Your task to perform on an android device: open a bookmark in the chrome app Image 0: 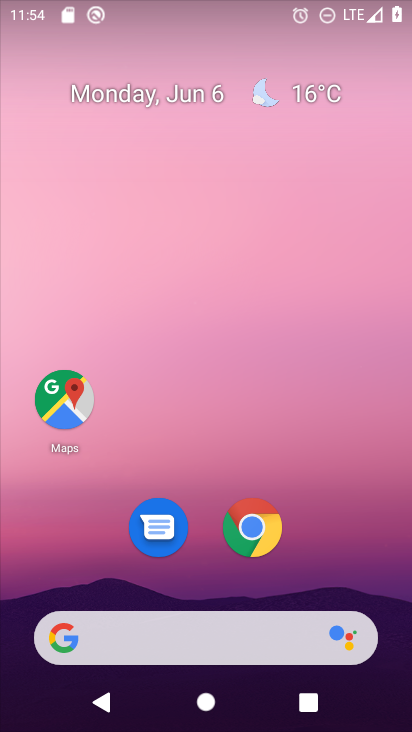
Step 0: drag from (353, 547) to (345, 48)
Your task to perform on an android device: open a bookmark in the chrome app Image 1: 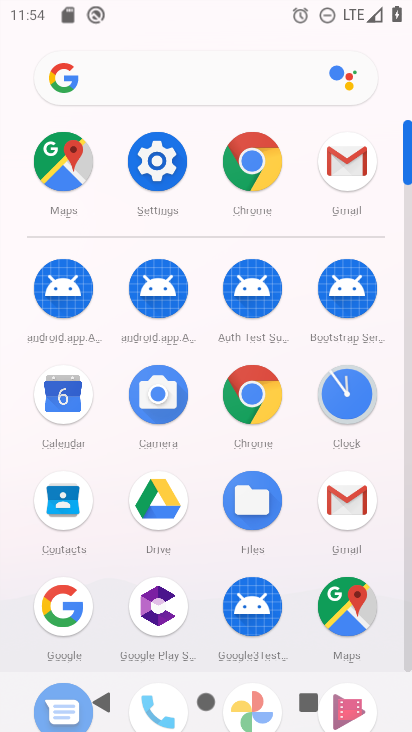
Step 1: click (246, 172)
Your task to perform on an android device: open a bookmark in the chrome app Image 2: 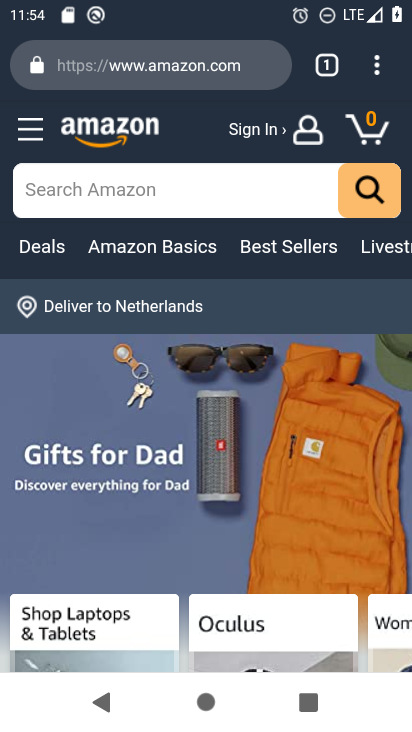
Step 2: click (384, 72)
Your task to perform on an android device: open a bookmark in the chrome app Image 3: 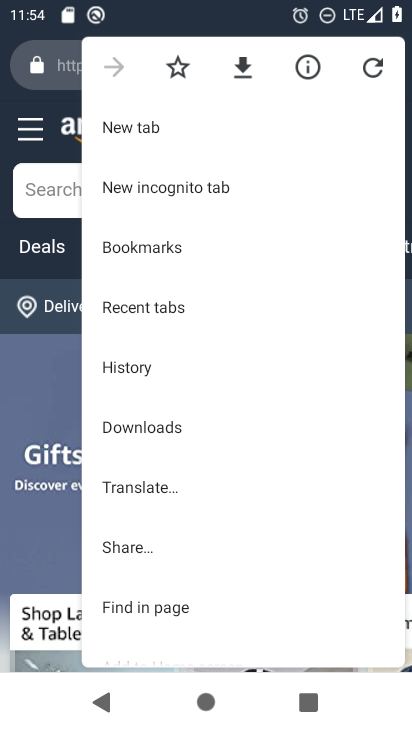
Step 3: click (203, 247)
Your task to perform on an android device: open a bookmark in the chrome app Image 4: 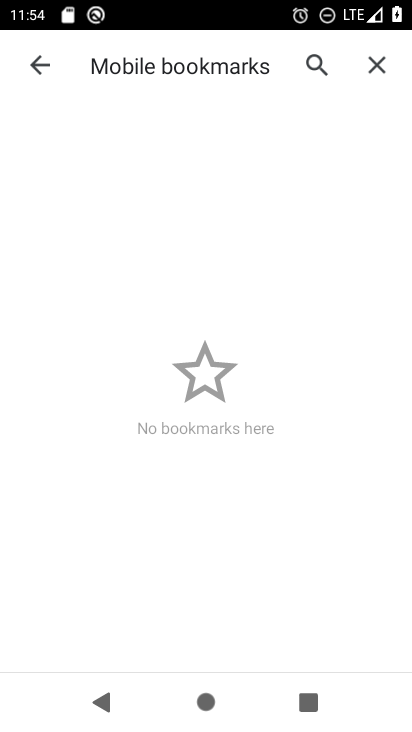
Step 4: task complete